Your task to perform on an android device: add a label to a message in the gmail app Image 0: 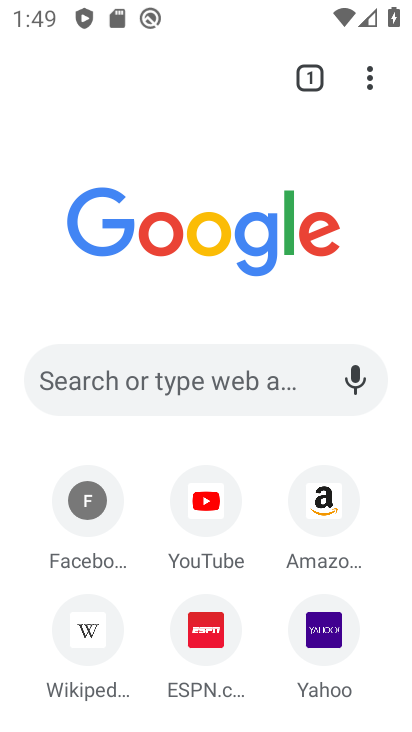
Step 0: press home button
Your task to perform on an android device: add a label to a message in the gmail app Image 1: 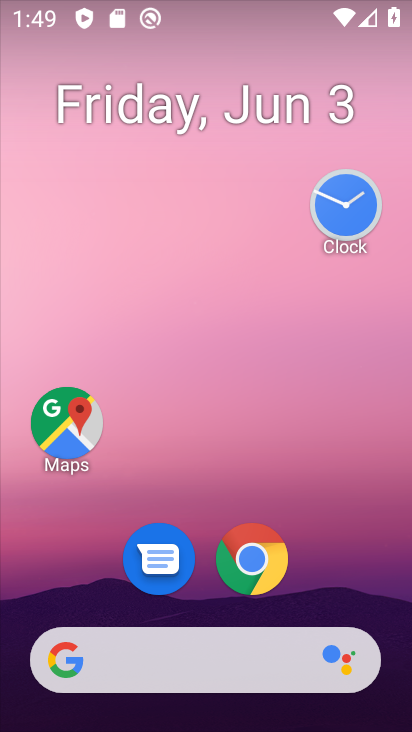
Step 1: drag from (380, 568) to (363, 239)
Your task to perform on an android device: add a label to a message in the gmail app Image 2: 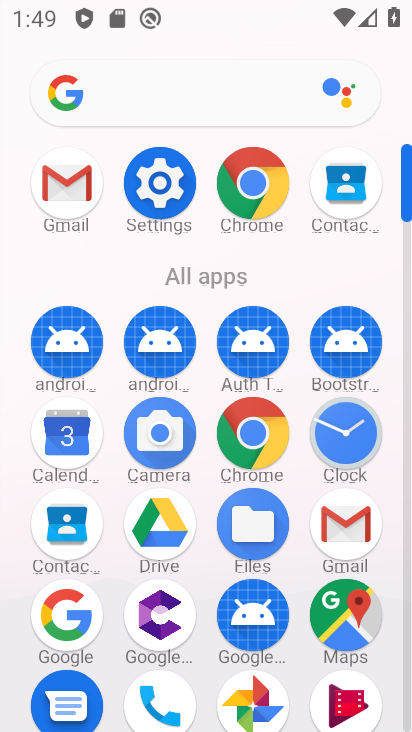
Step 2: click (335, 539)
Your task to perform on an android device: add a label to a message in the gmail app Image 3: 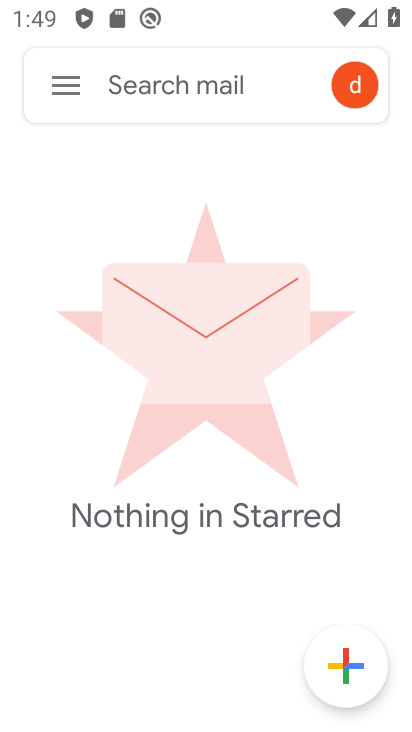
Step 3: click (76, 96)
Your task to perform on an android device: add a label to a message in the gmail app Image 4: 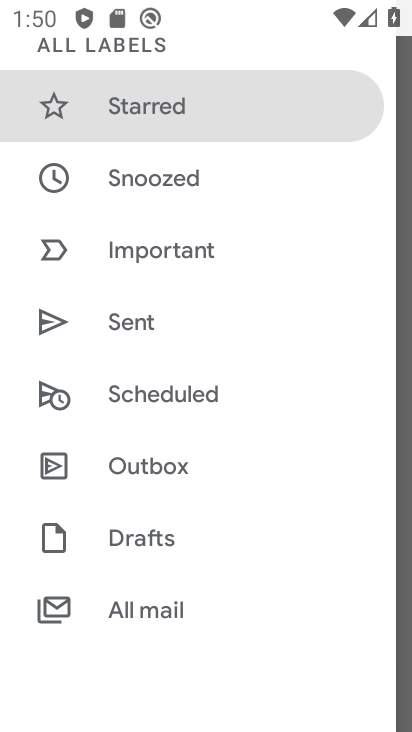
Step 4: click (159, 606)
Your task to perform on an android device: add a label to a message in the gmail app Image 5: 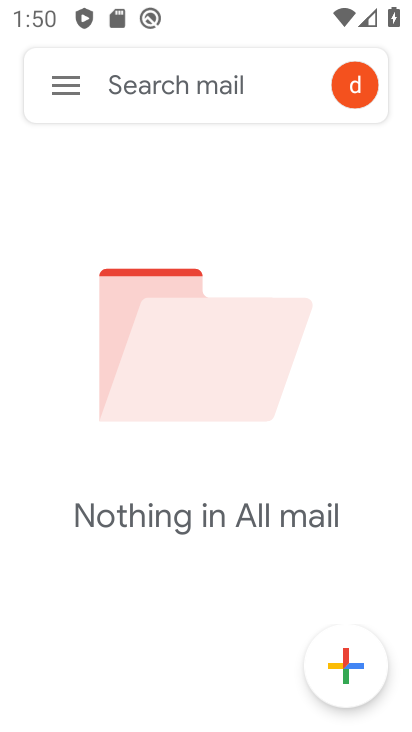
Step 5: task complete